Your task to perform on an android device: open the mobile data screen to see how much data has been used Image 0: 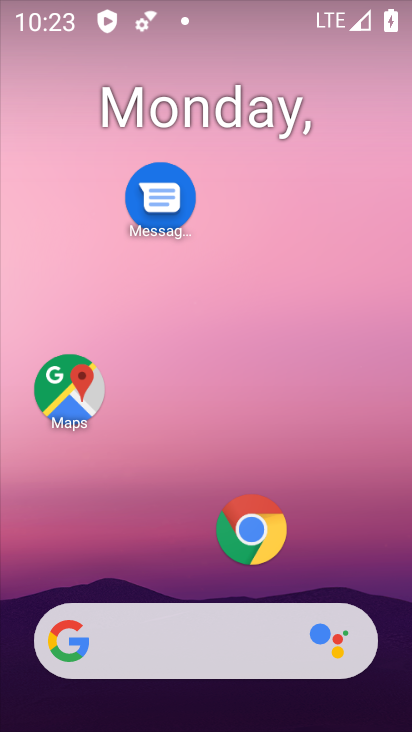
Step 0: drag from (226, 480) to (222, 58)
Your task to perform on an android device: open the mobile data screen to see how much data has been used Image 1: 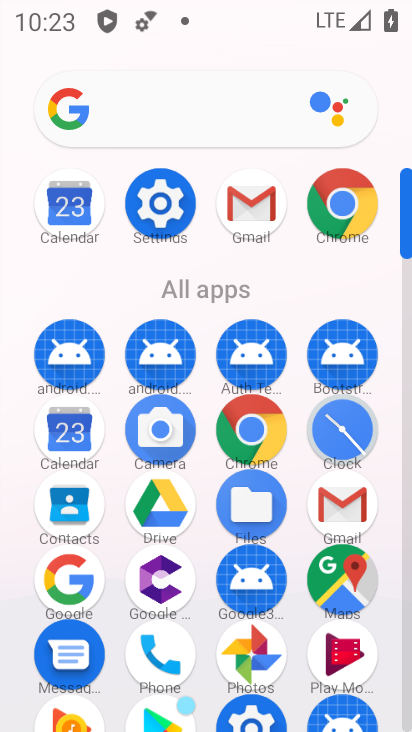
Step 1: click (165, 222)
Your task to perform on an android device: open the mobile data screen to see how much data has been used Image 2: 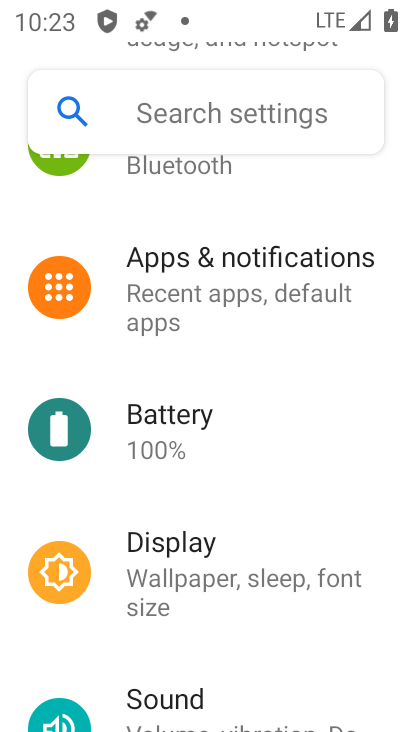
Step 2: drag from (195, 219) to (173, 568)
Your task to perform on an android device: open the mobile data screen to see how much data has been used Image 3: 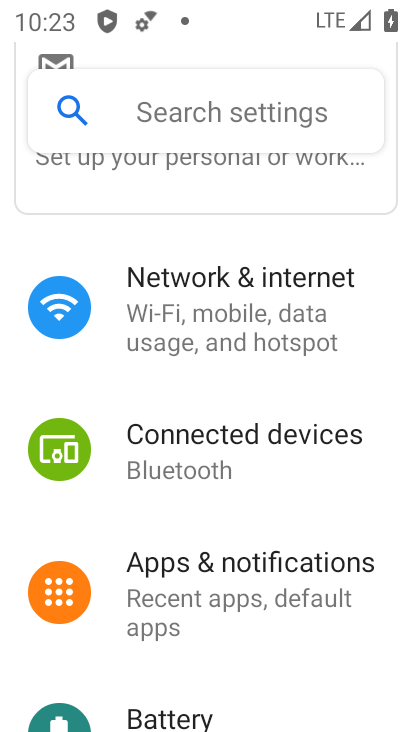
Step 3: drag from (200, 545) to (171, 451)
Your task to perform on an android device: open the mobile data screen to see how much data has been used Image 4: 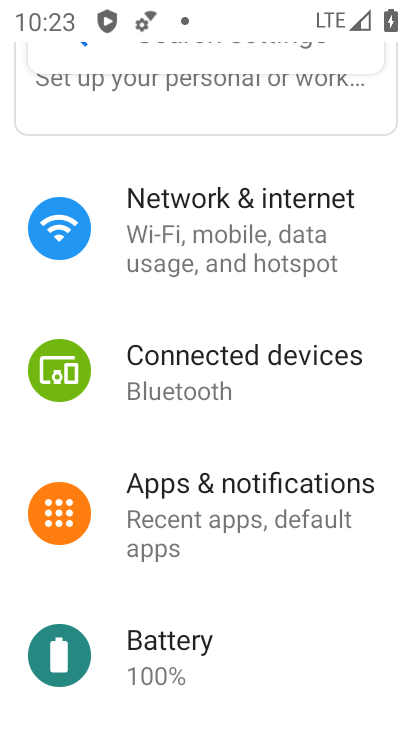
Step 4: click (269, 264)
Your task to perform on an android device: open the mobile data screen to see how much data has been used Image 5: 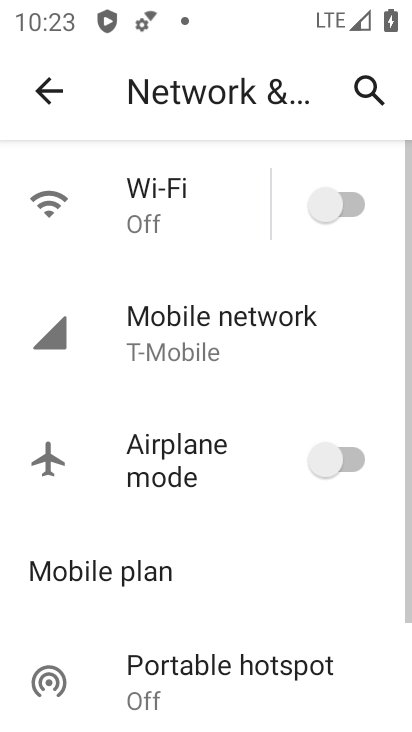
Step 5: click (245, 319)
Your task to perform on an android device: open the mobile data screen to see how much data has been used Image 6: 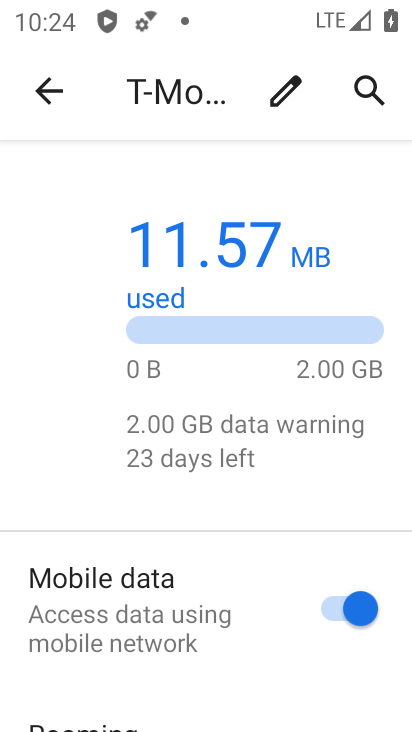
Step 6: task complete